Your task to perform on an android device: Toggle the flashlight Image 0: 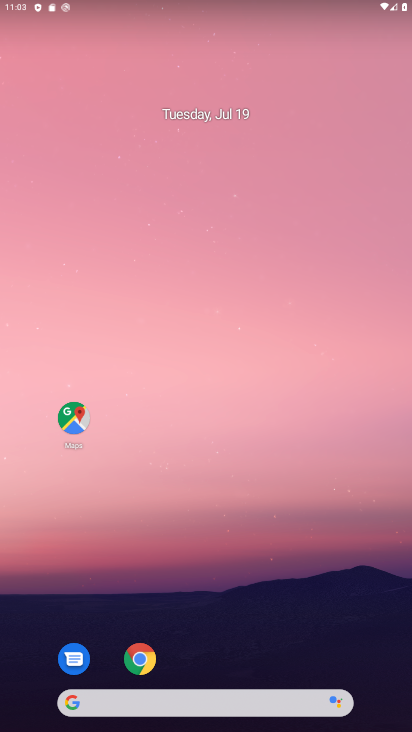
Step 0: drag from (308, 8) to (286, 440)
Your task to perform on an android device: Toggle the flashlight Image 1: 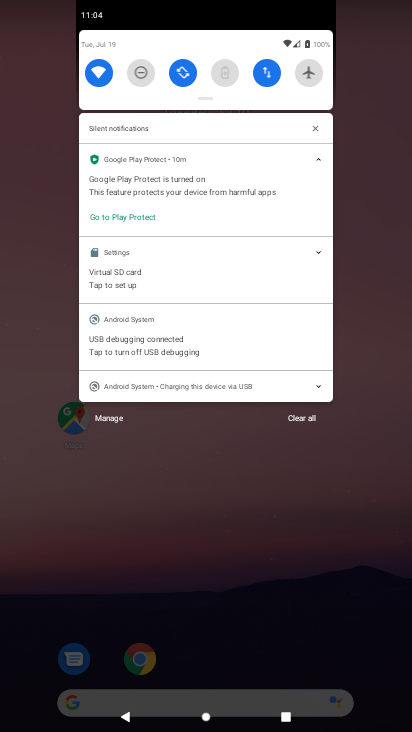
Step 1: drag from (223, 97) to (256, 650)
Your task to perform on an android device: Toggle the flashlight Image 2: 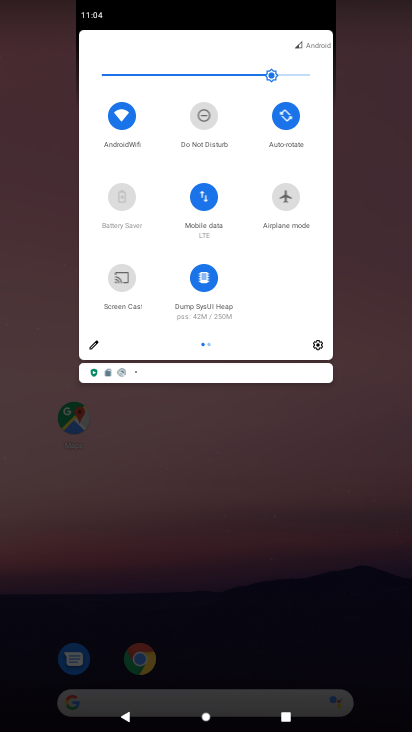
Step 2: click (98, 339)
Your task to perform on an android device: Toggle the flashlight Image 3: 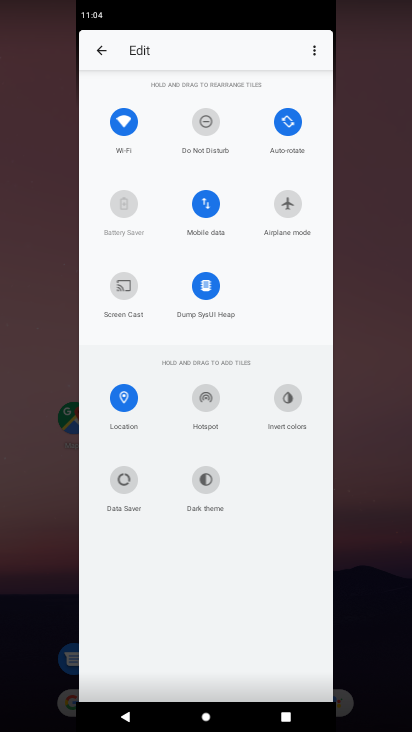
Step 3: task complete